Your task to perform on an android device: Open the calendar app, open the side menu, and click the "Day" option Image 0: 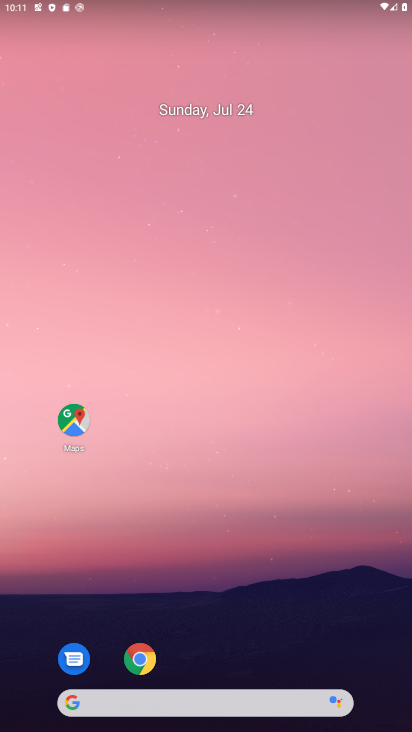
Step 0: drag from (383, 710) to (381, 80)
Your task to perform on an android device: Open the calendar app, open the side menu, and click the "Day" option Image 1: 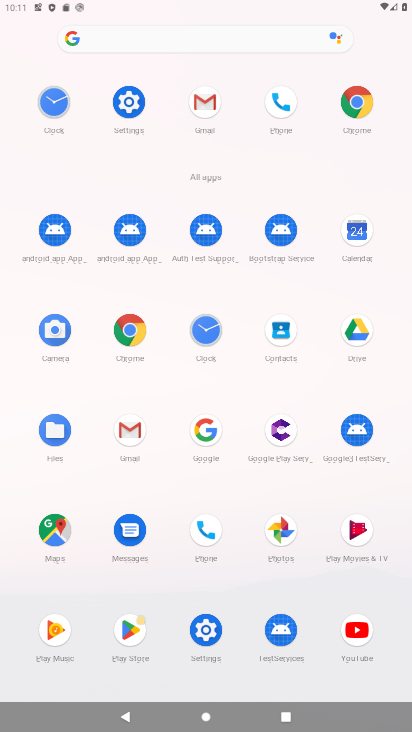
Step 1: click (352, 231)
Your task to perform on an android device: Open the calendar app, open the side menu, and click the "Day" option Image 2: 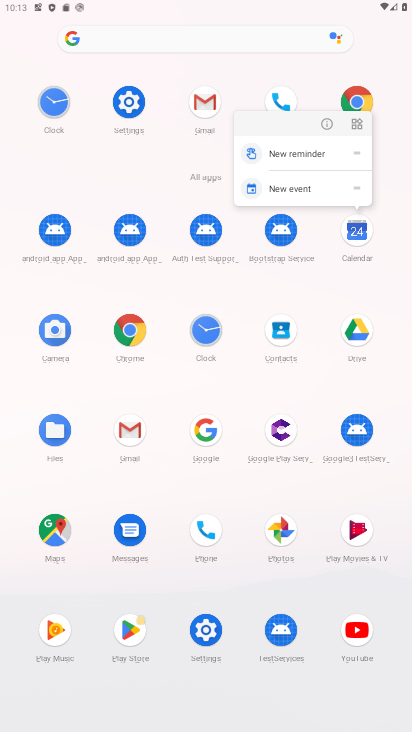
Step 2: click (353, 237)
Your task to perform on an android device: Open the calendar app, open the side menu, and click the "Day" option Image 3: 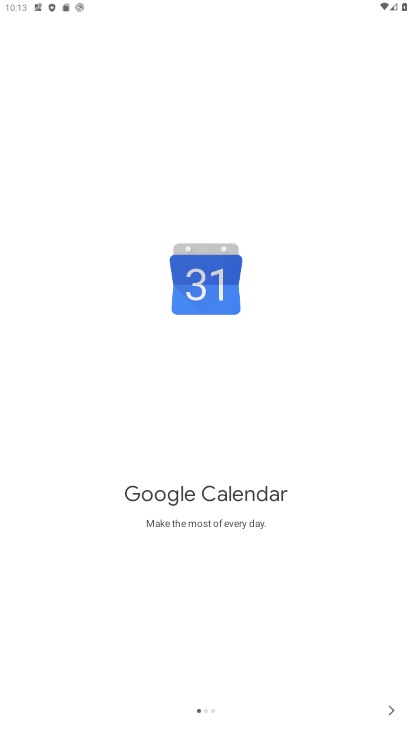
Step 3: click (383, 708)
Your task to perform on an android device: Open the calendar app, open the side menu, and click the "Day" option Image 4: 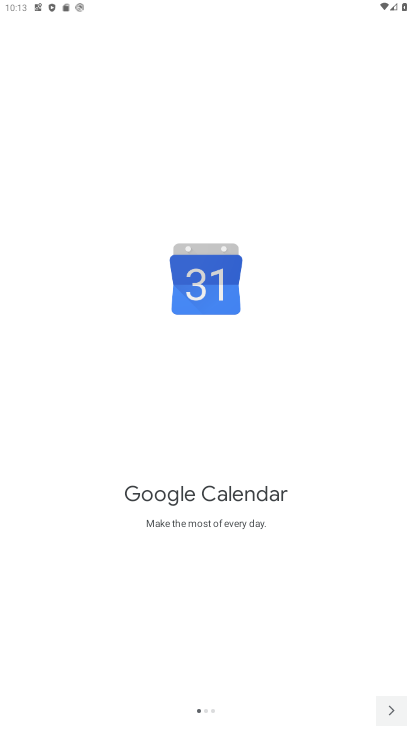
Step 4: click (385, 708)
Your task to perform on an android device: Open the calendar app, open the side menu, and click the "Day" option Image 5: 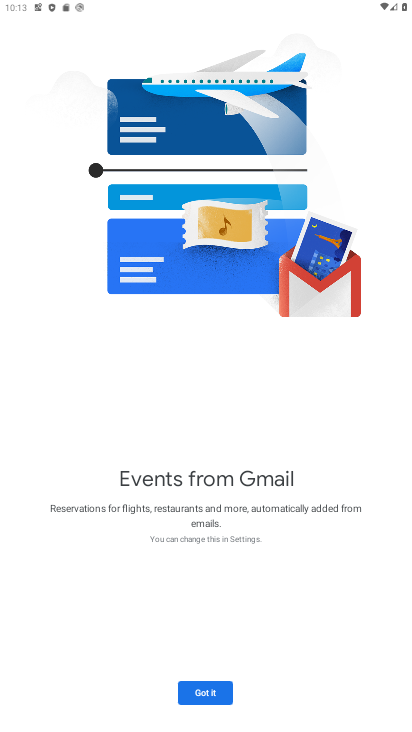
Step 5: click (383, 707)
Your task to perform on an android device: Open the calendar app, open the side menu, and click the "Day" option Image 6: 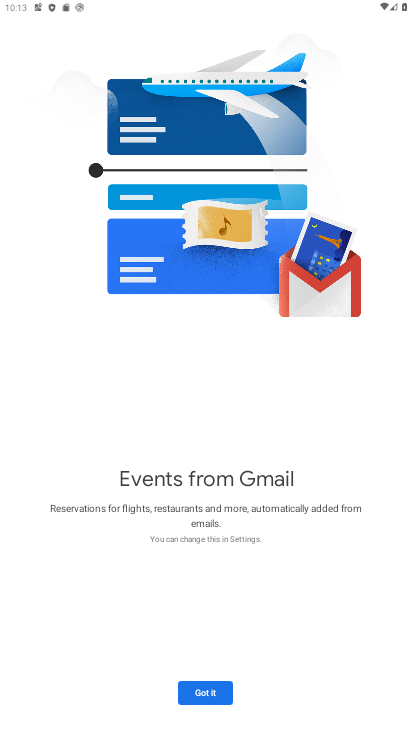
Step 6: click (216, 682)
Your task to perform on an android device: Open the calendar app, open the side menu, and click the "Day" option Image 7: 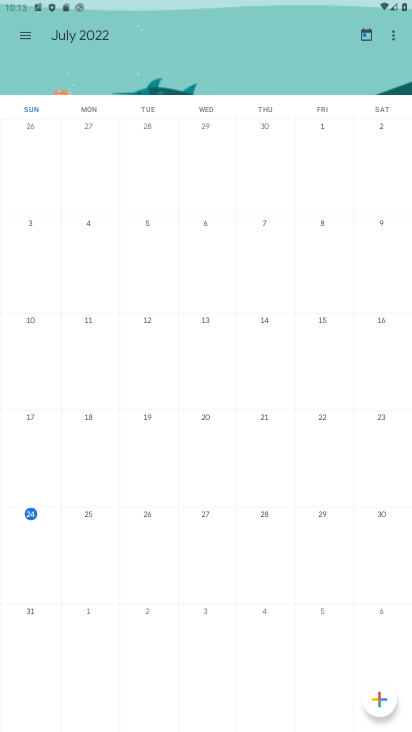
Step 7: click (19, 32)
Your task to perform on an android device: Open the calendar app, open the side menu, and click the "Day" option Image 8: 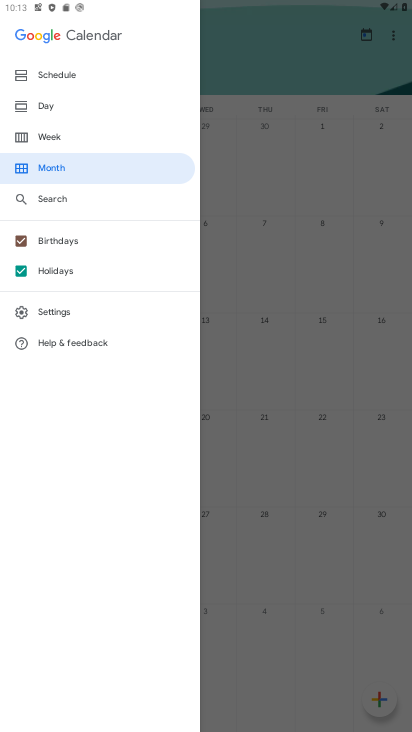
Step 8: click (47, 102)
Your task to perform on an android device: Open the calendar app, open the side menu, and click the "Day" option Image 9: 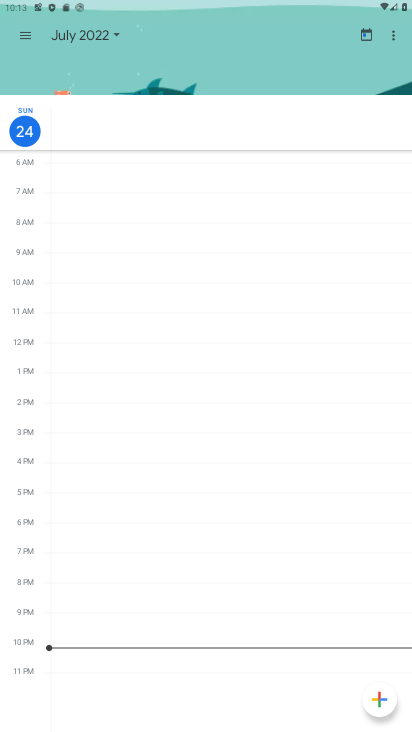
Step 9: task complete